Your task to perform on an android device: open app "Contacts" Image 0: 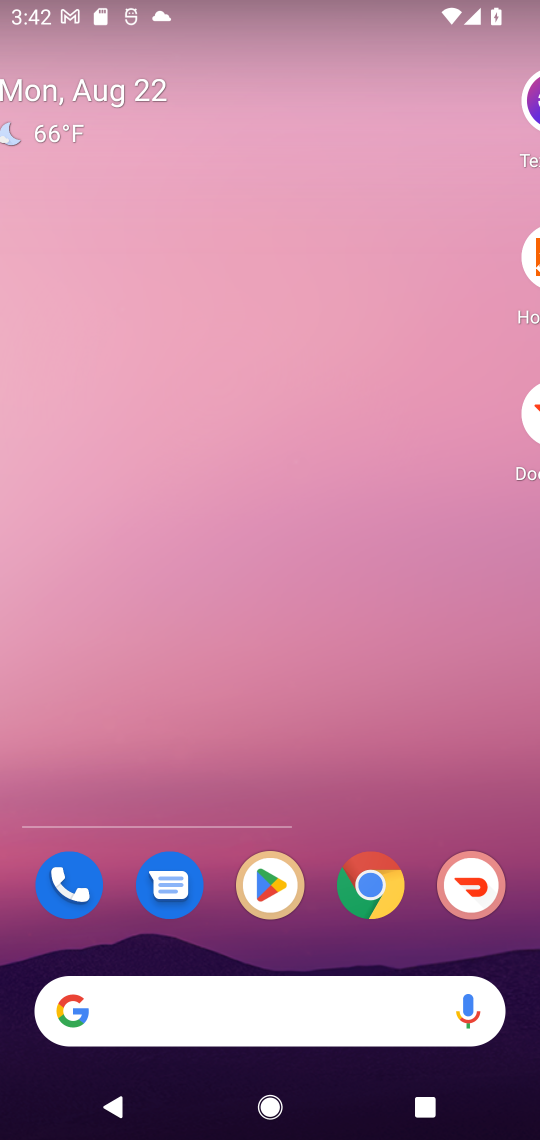
Step 0: press home button
Your task to perform on an android device: open app "Contacts" Image 1: 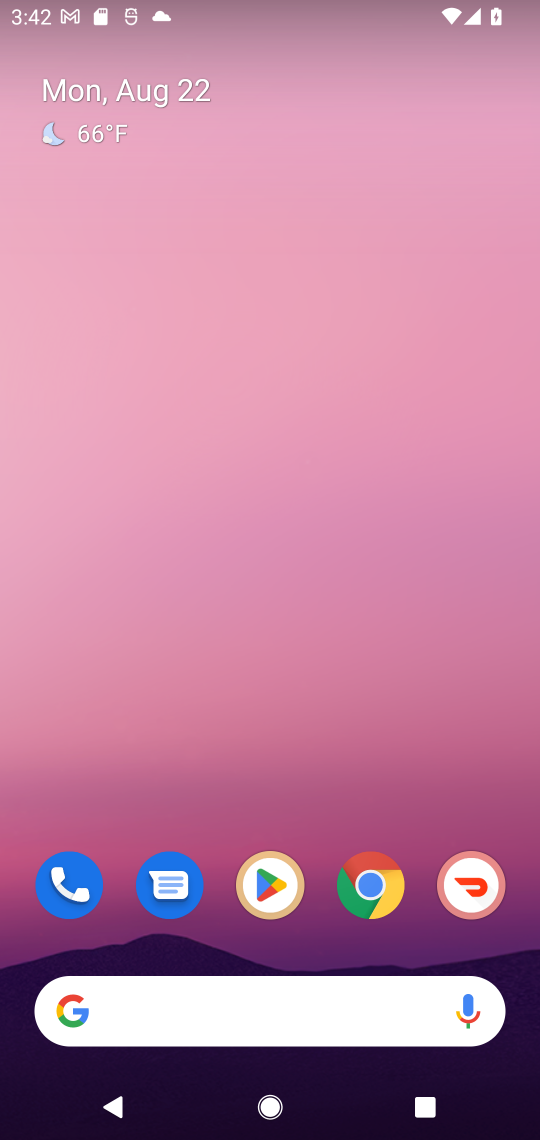
Step 1: click (276, 872)
Your task to perform on an android device: open app "Contacts" Image 2: 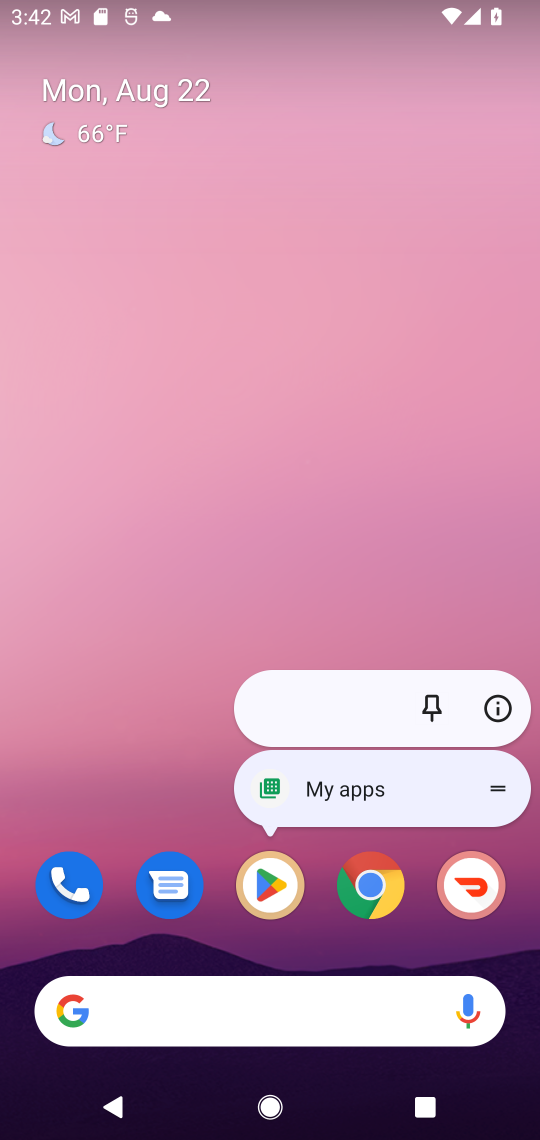
Step 2: click (133, 714)
Your task to perform on an android device: open app "Contacts" Image 3: 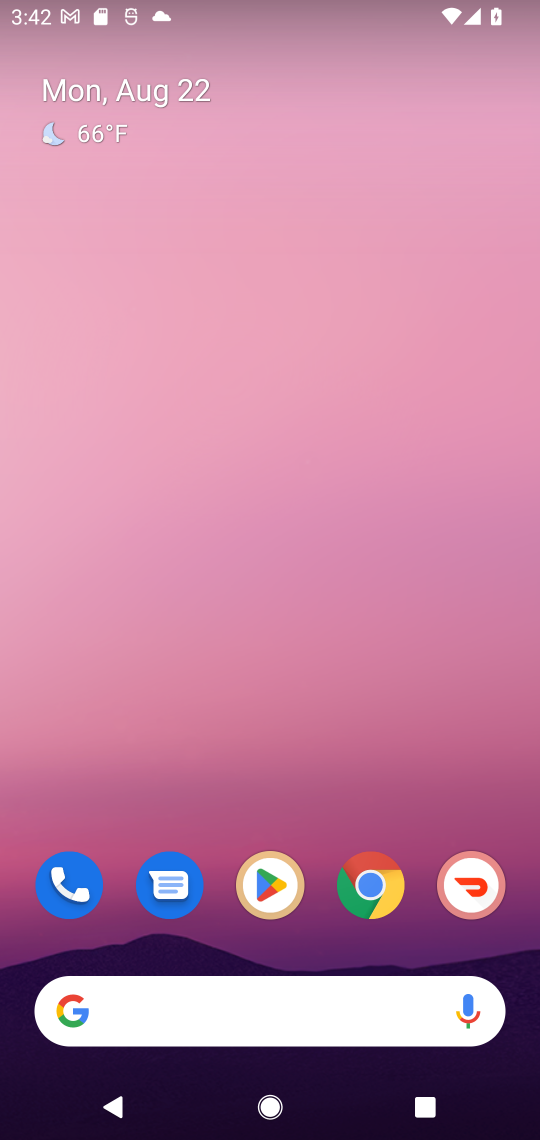
Step 3: click (263, 880)
Your task to perform on an android device: open app "Contacts" Image 4: 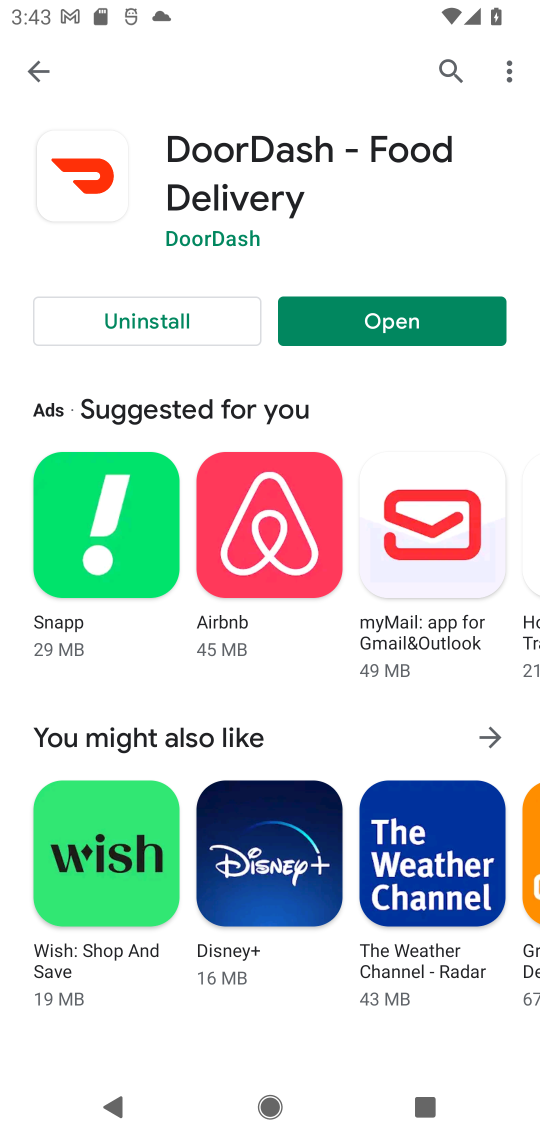
Step 4: click (444, 73)
Your task to perform on an android device: open app "Contacts" Image 5: 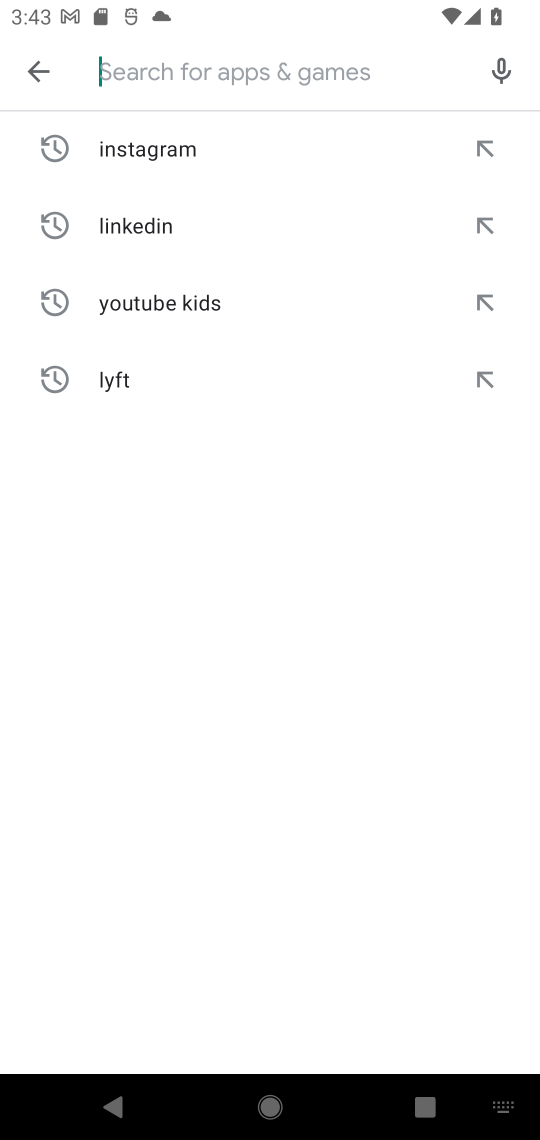
Step 5: type "Contacts"
Your task to perform on an android device: open app "Contacts" Image 6: 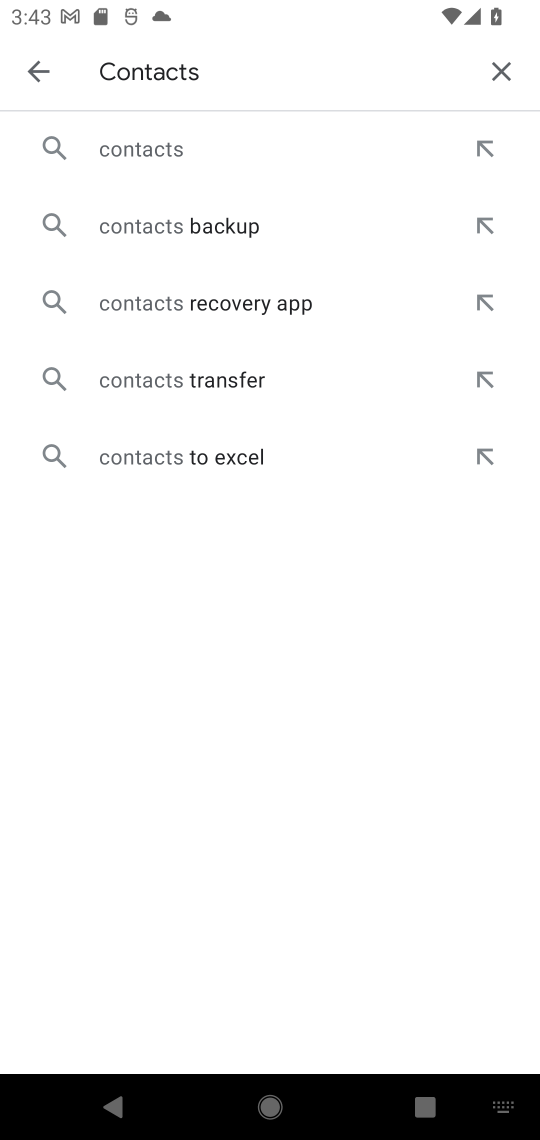
Step 6: click (194, 152)
Your task to perform on an android device: open app "Contacts" Image 7: 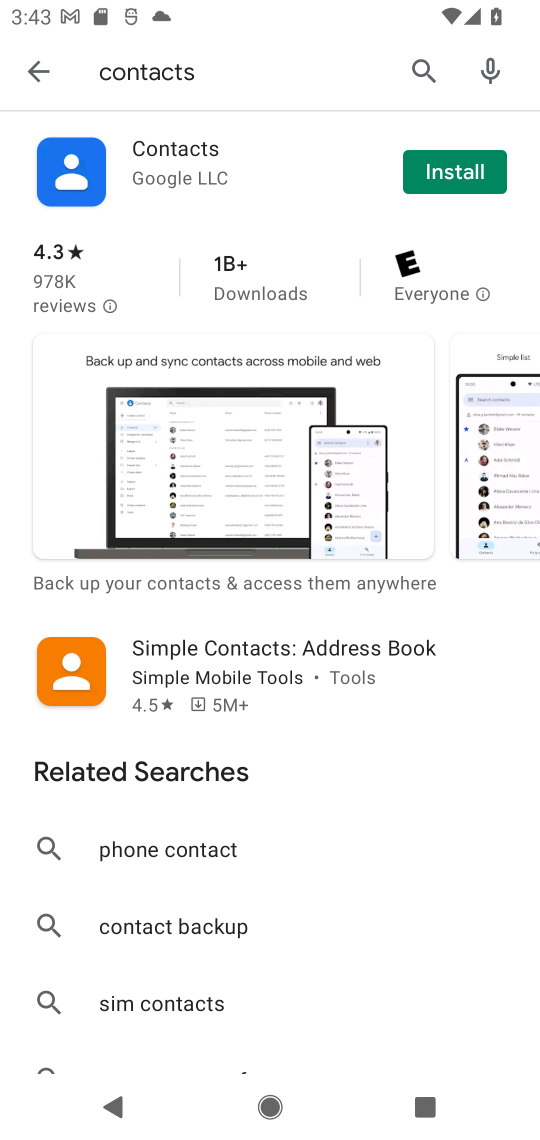
Step 7: task complete